Your task to perform on an android device: What is the news today? Image 0: 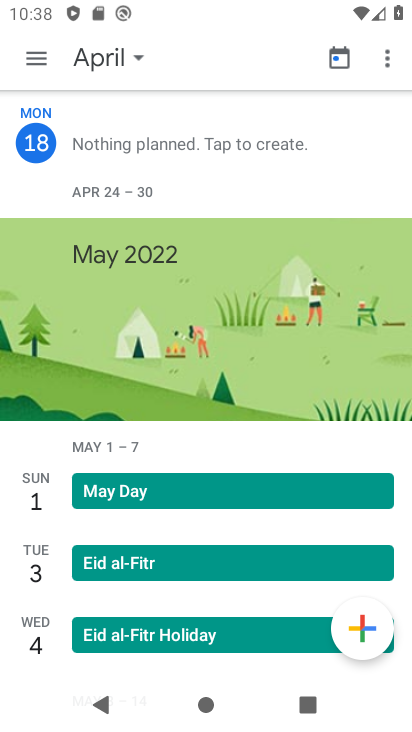
Step 0: click (48, 156)
Your task to perform on an android device: What is the news today? Image 1: 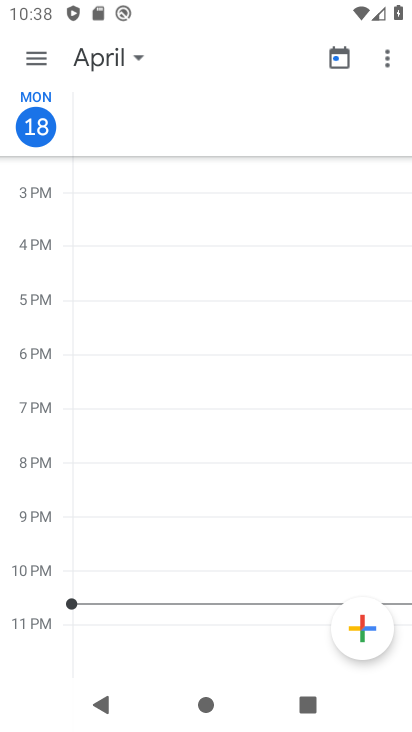
Step 1: click (143, 59)
Your task to perform on an android device: What is the news today? Image 2: 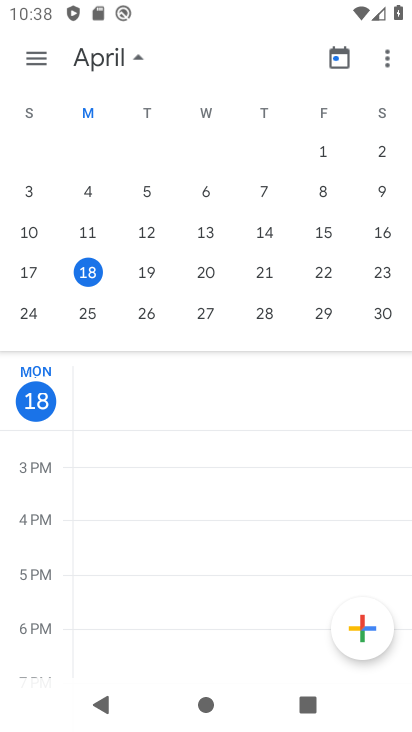
Step 2: click (141, 265)
Your task to perform on an android device: What is the news today? Image 3: 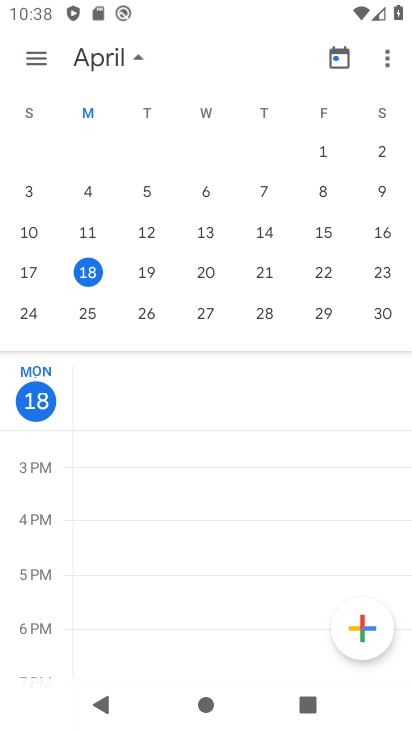
Step 3: click (142, 268)
Your task to perform on an android device: What is the news today? Image 4: 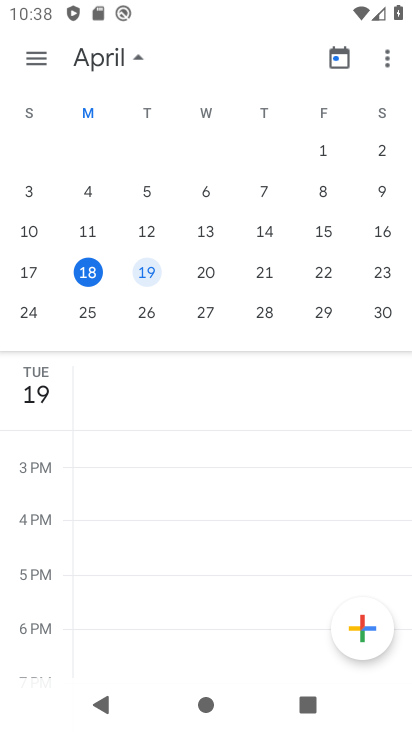
Step 4: click (142, 268)
Your task to perform on an android device: What is the news today? Image 5: 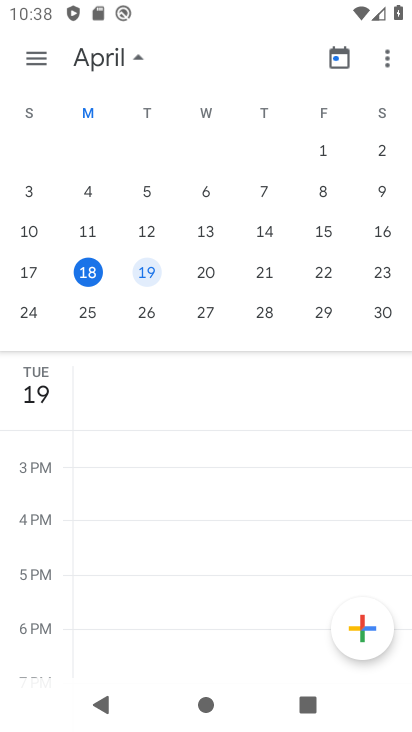
Step 5: click (136, 72)
Your task to perform on an android device: What is the news today? Image 6: 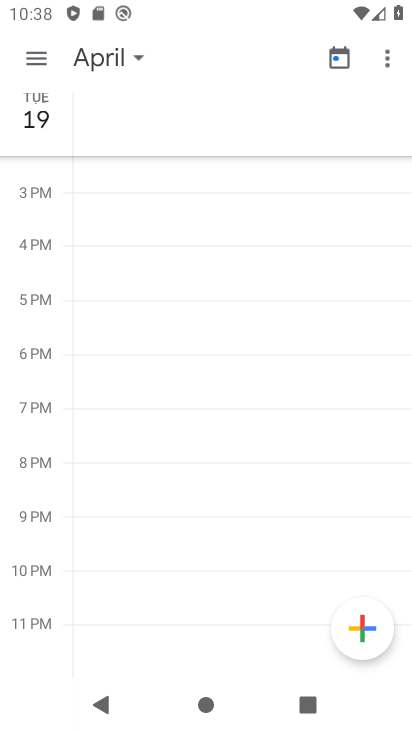
Step 6: task complete